Your task to perform on an android device: Add apple airpods pro to the cart on bestbuy.com Image 0: 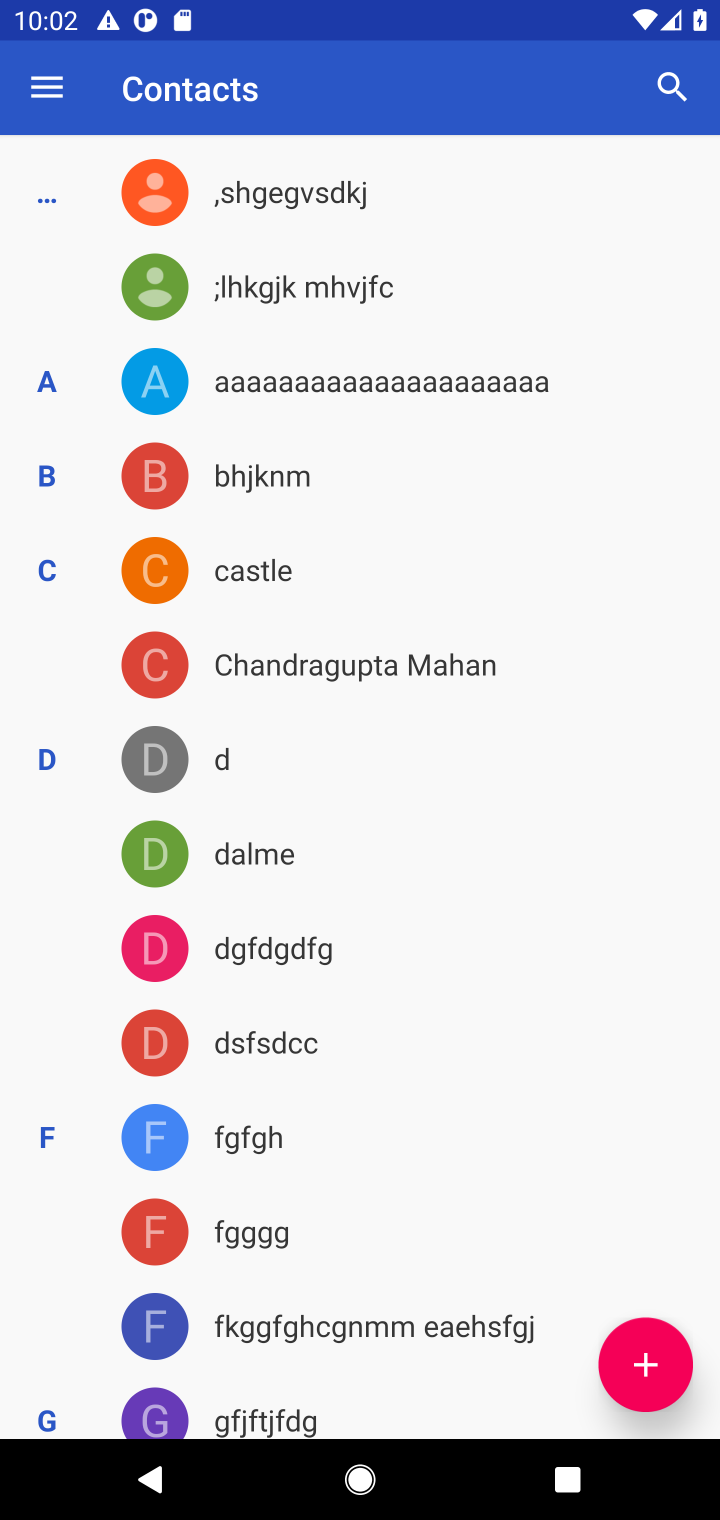
Step 0: press home button
Your task to perform on an android device: Add apple airpods pro to the cart on bestbuy.com Image 1: 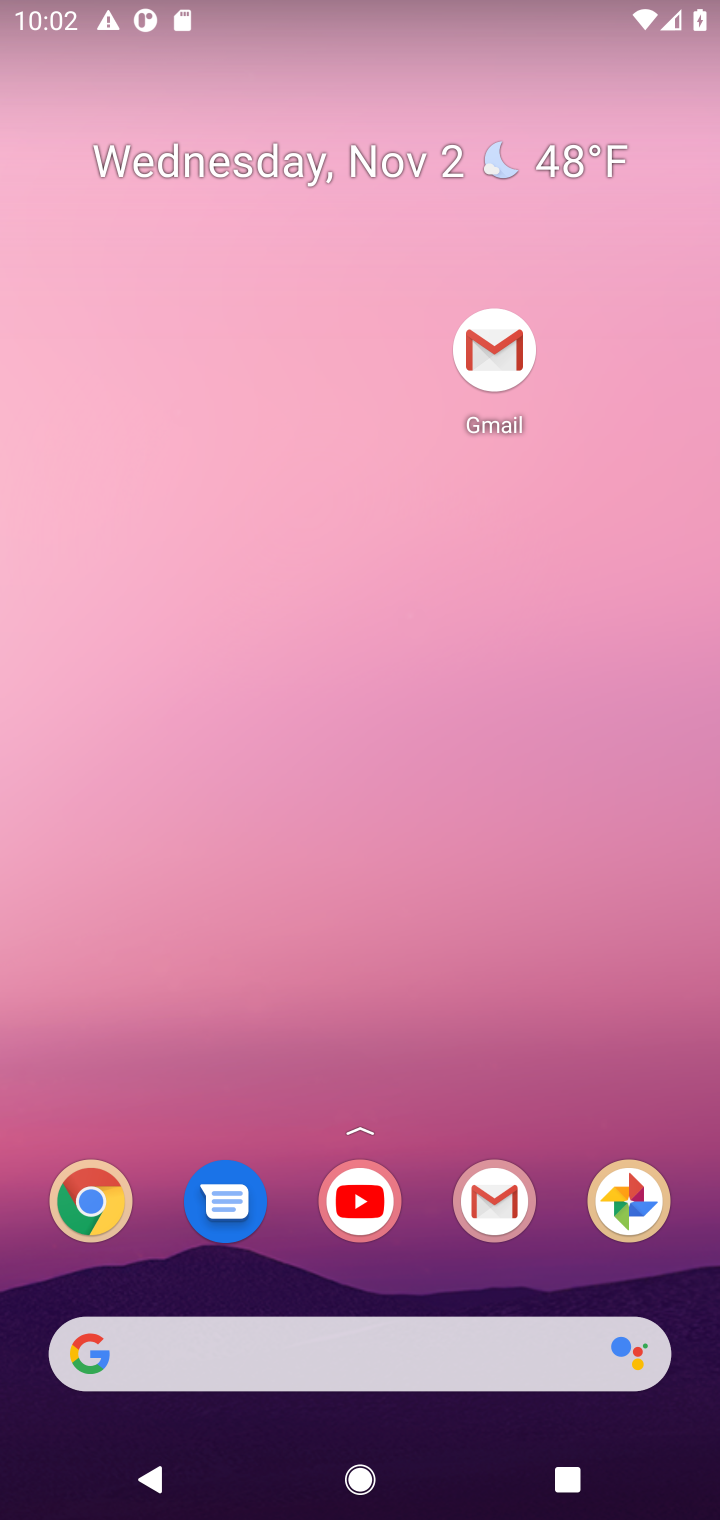
Step 1: drag from (423, 1266) to (341, 51)
Your task to perform on an android device: Add apple airpods pro to the cart on bestbuy.com Image 2: 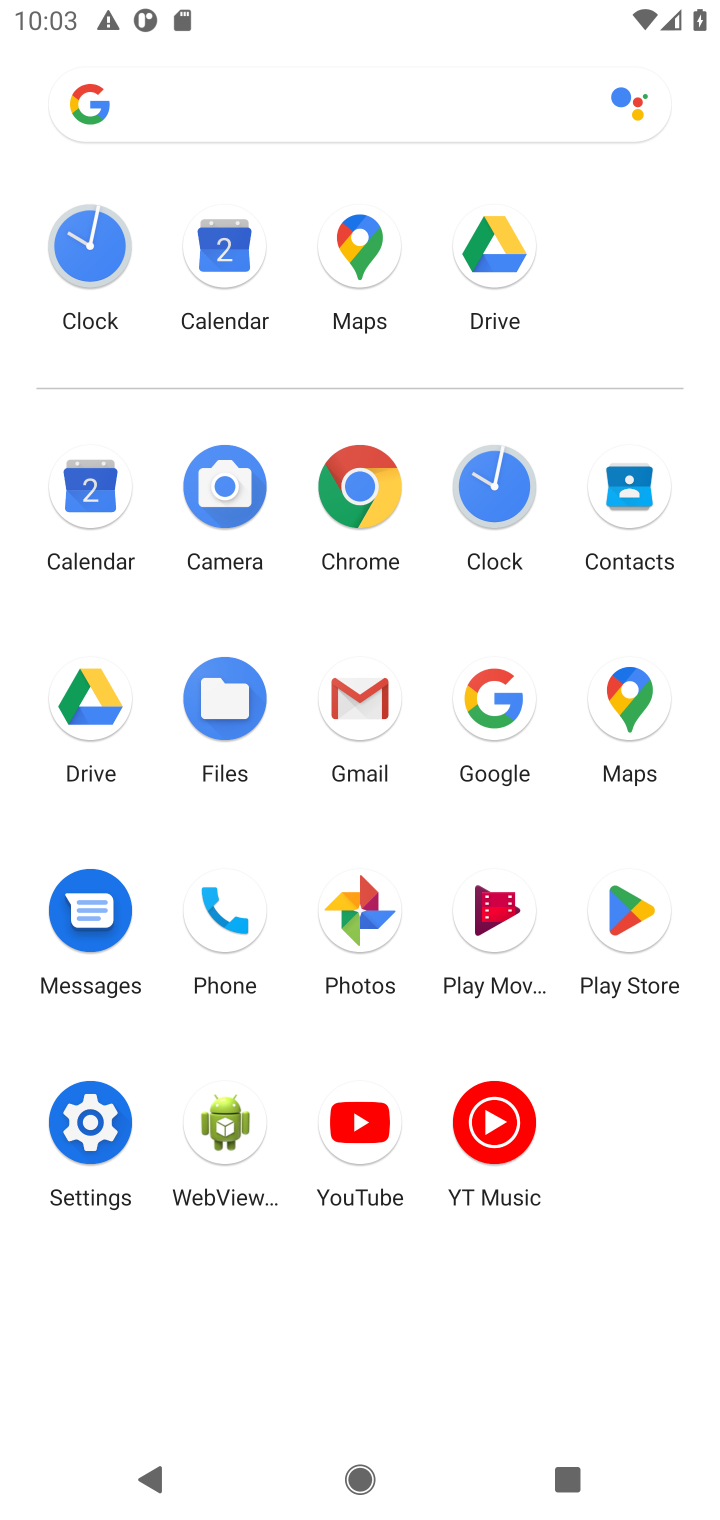
Step 2: click (369, 492)
Your task to perform on an android device: Add apple airpods pro to the cart on bestbuy.com Image 3: 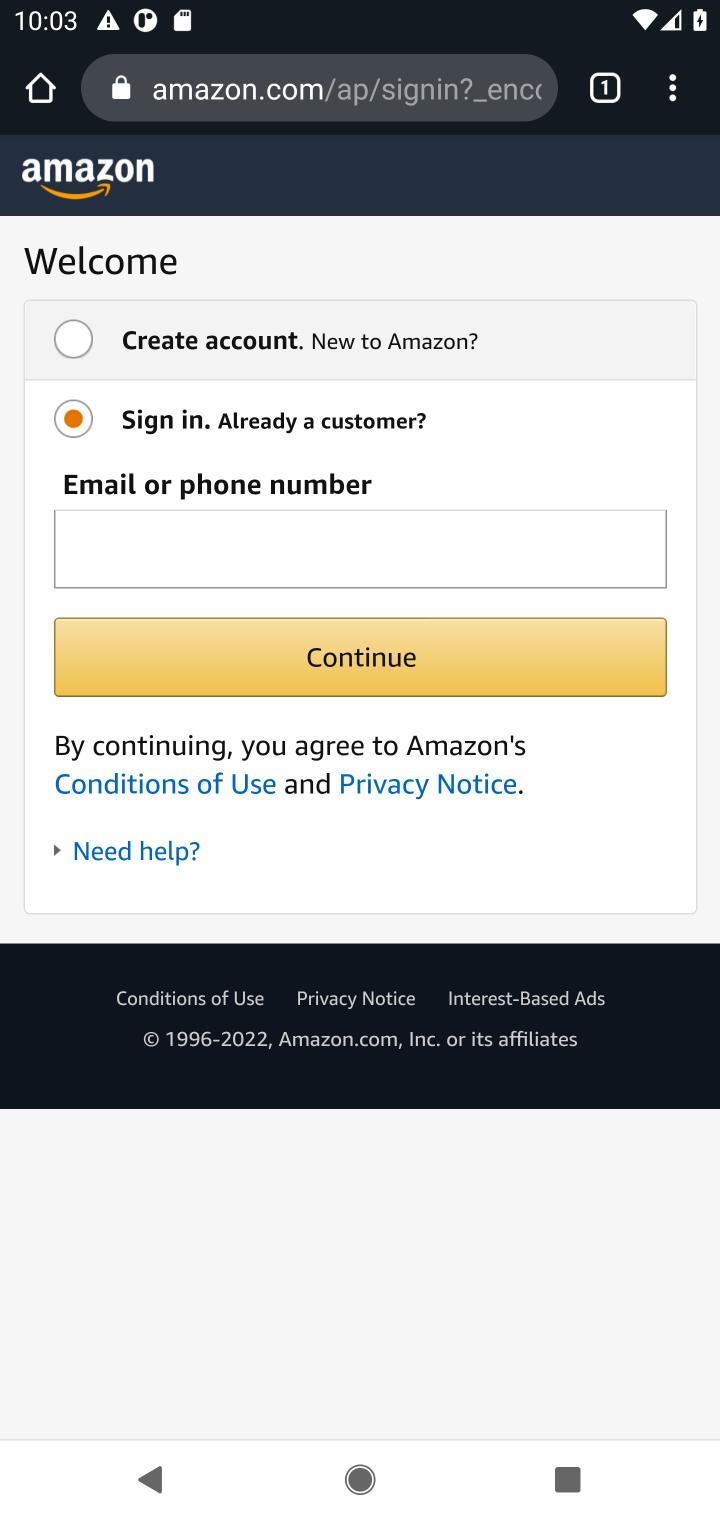
Step 3: click (446, 95)
Your task to perform on an android device: Add apple airpods pro to the cart on bestbuy.com Image 4: 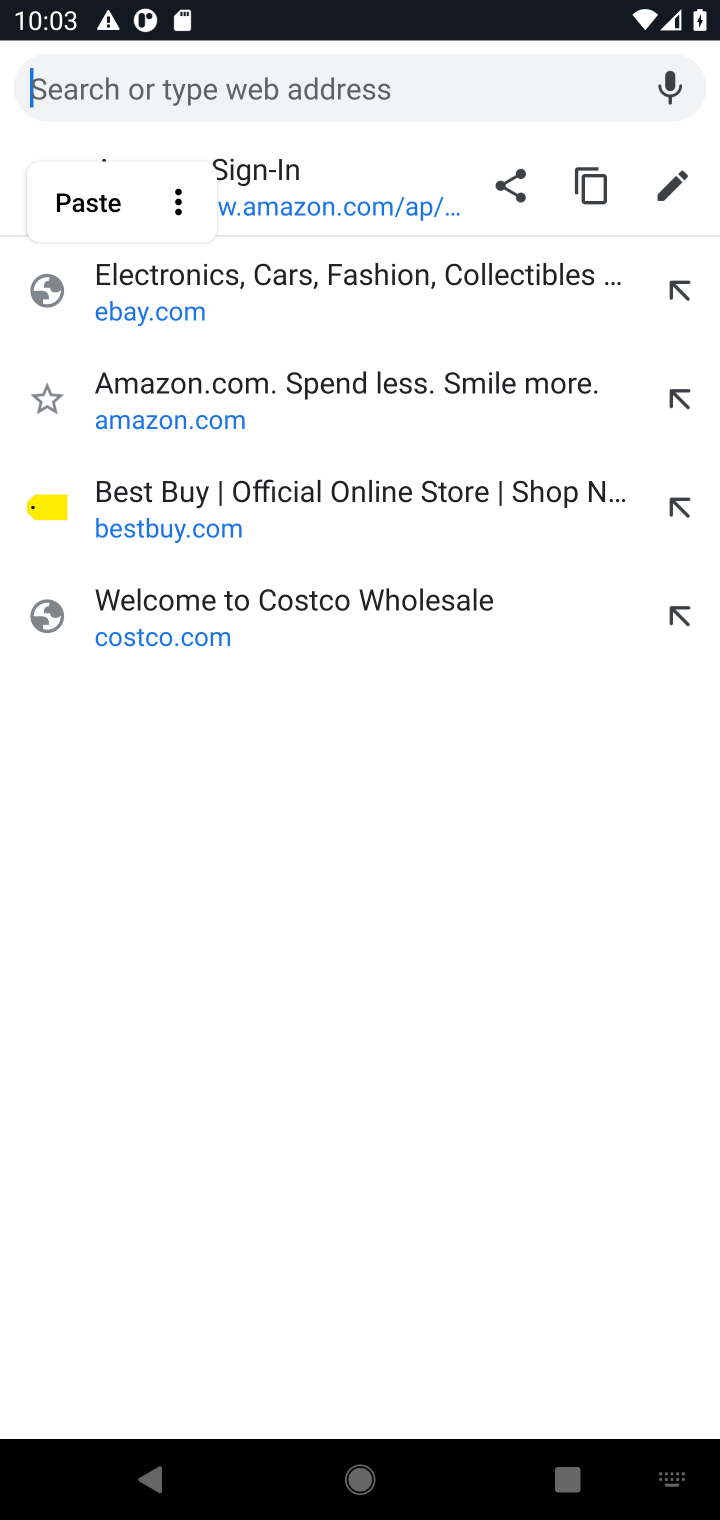
Step 4: type "bestbuy.com"
Your task to perform on an android device: Add apple airpods pro to the cart on bestbuy.com Image 5: 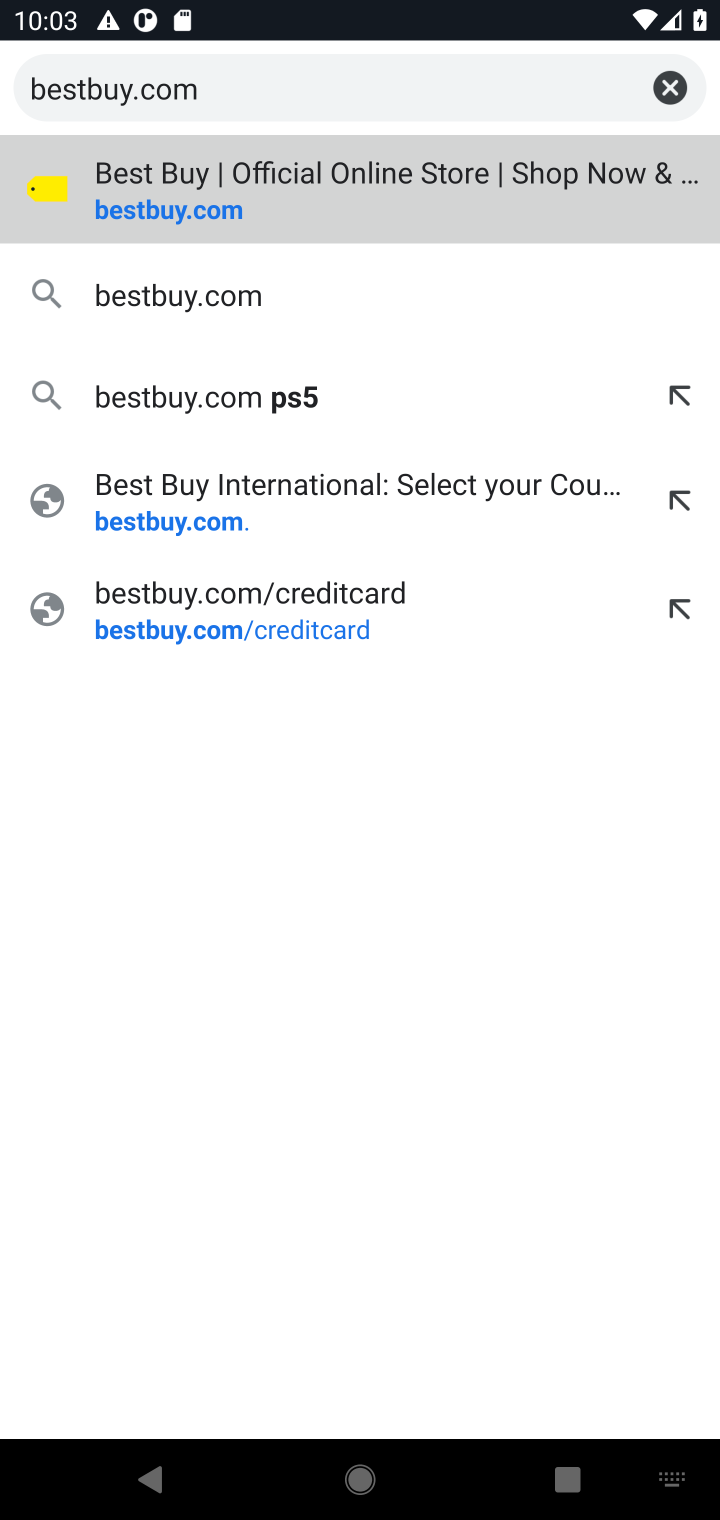
Step 5: press enter
Your task to perform on an android device: Add apple airpods pro to the cart on bestbuy.com Image 6: 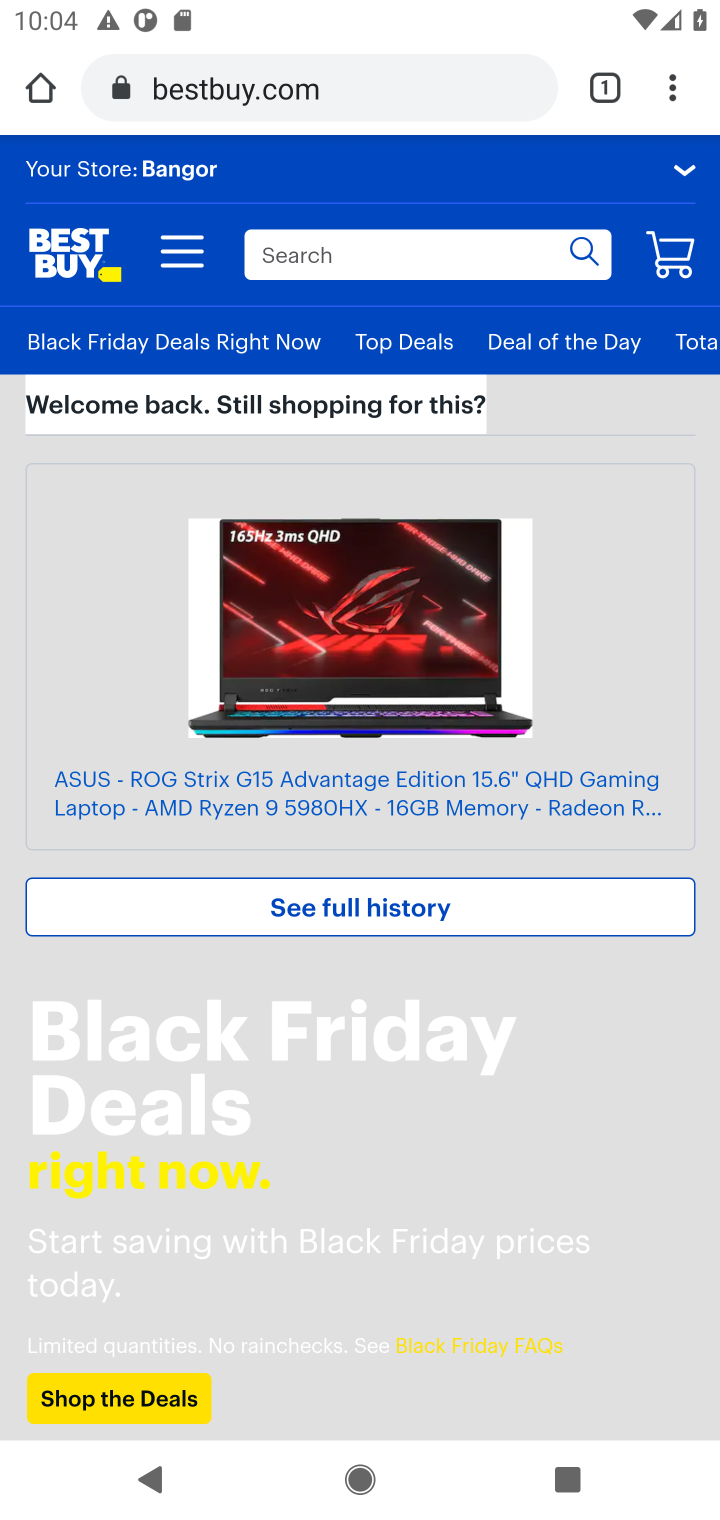
Step 6: click (436, 269)
Your task to perform on an android device: Add apple airpods pro to the cart on bestbuy.com Image 7: 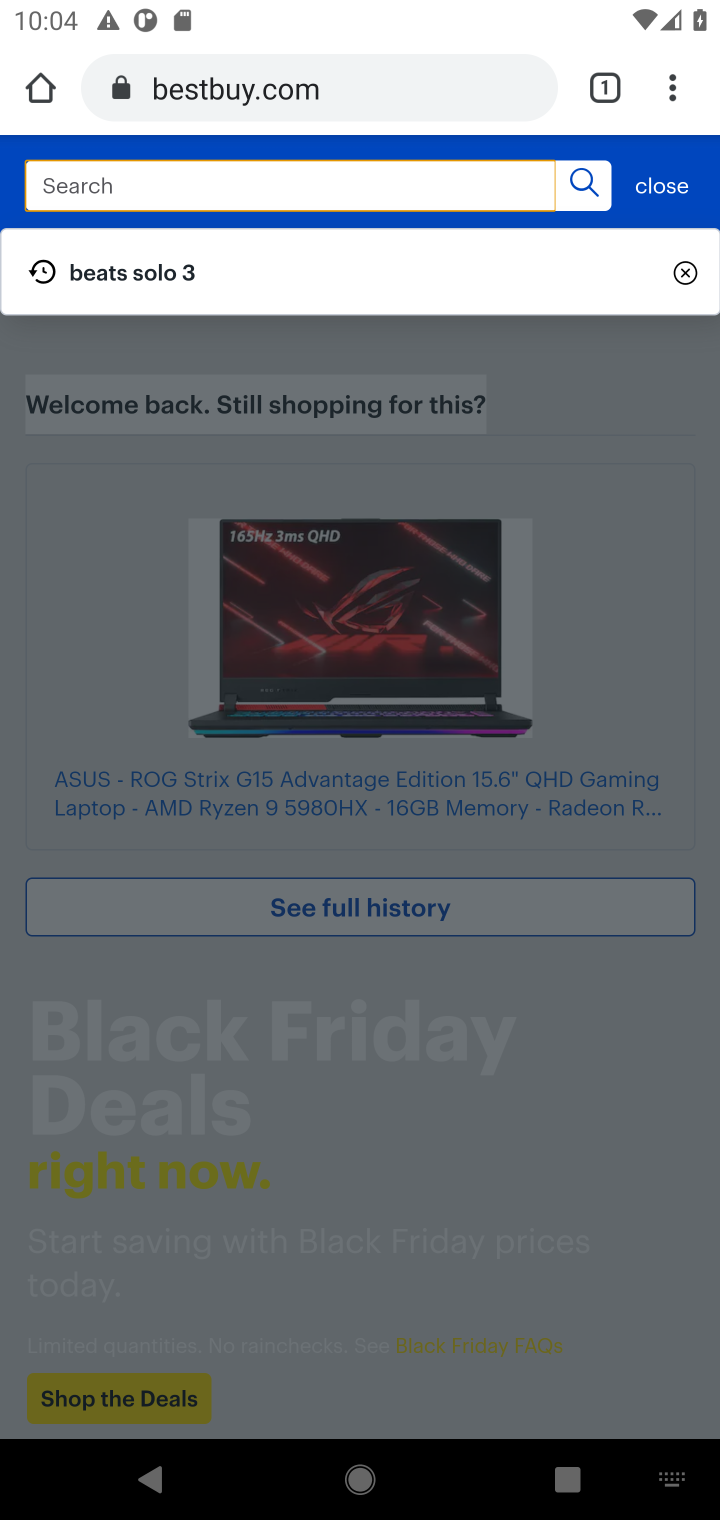
Step 7: type "apple airpods"
Your task to perform on an android device: Add apple airpods pro to the cart on bestbuy.com Image 8: 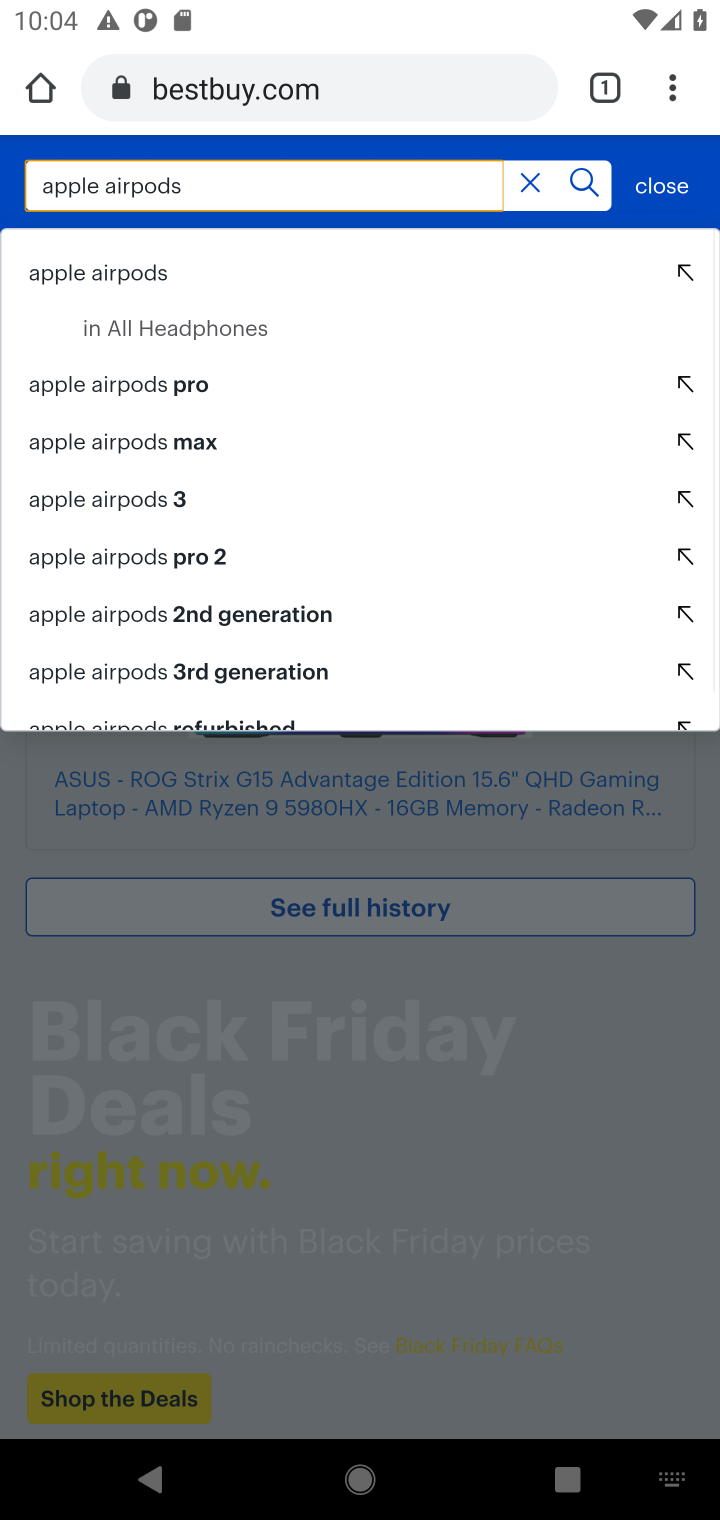
Step 8: press enter
Your task to perform on an android device: Add apple airpods pro to the cart on bestbuy.com Image 9: 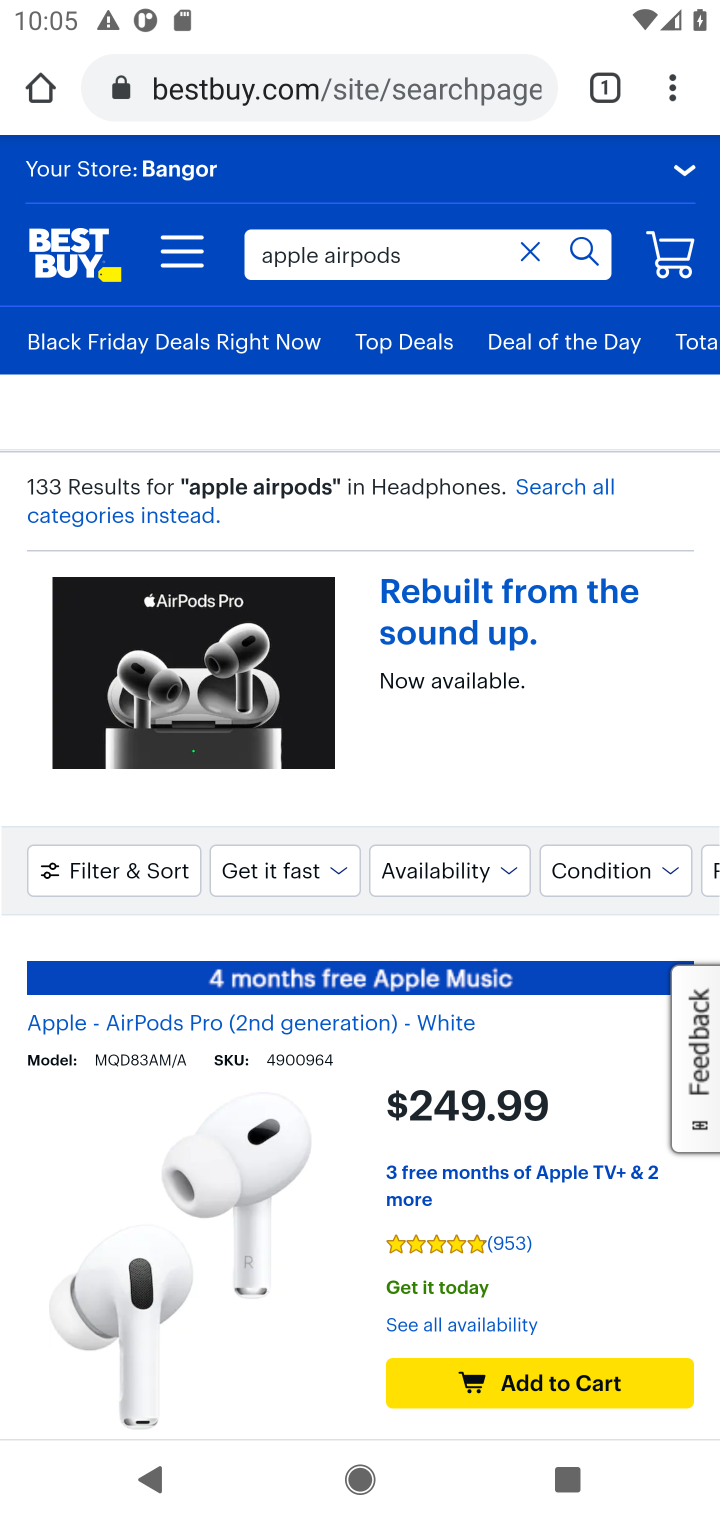
Step 9: click (464, 249)
Your task to perform on an android device: Add apple airpods pro to the cart on bestbuy.com Image 10: 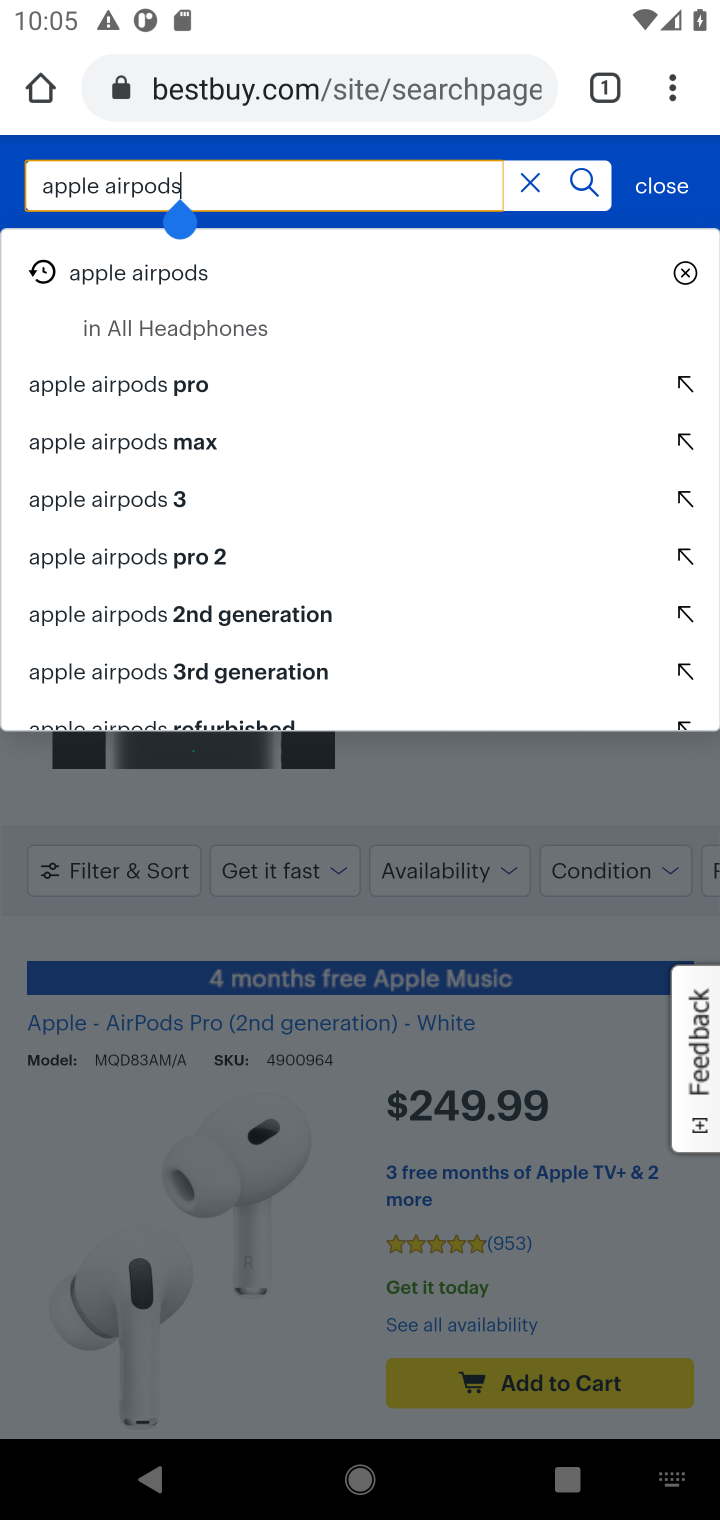
Step 10: click (210, 383)
Your task to perform on an android device: Add apple airpods pro to the cart on bestbuy.com Image 11: 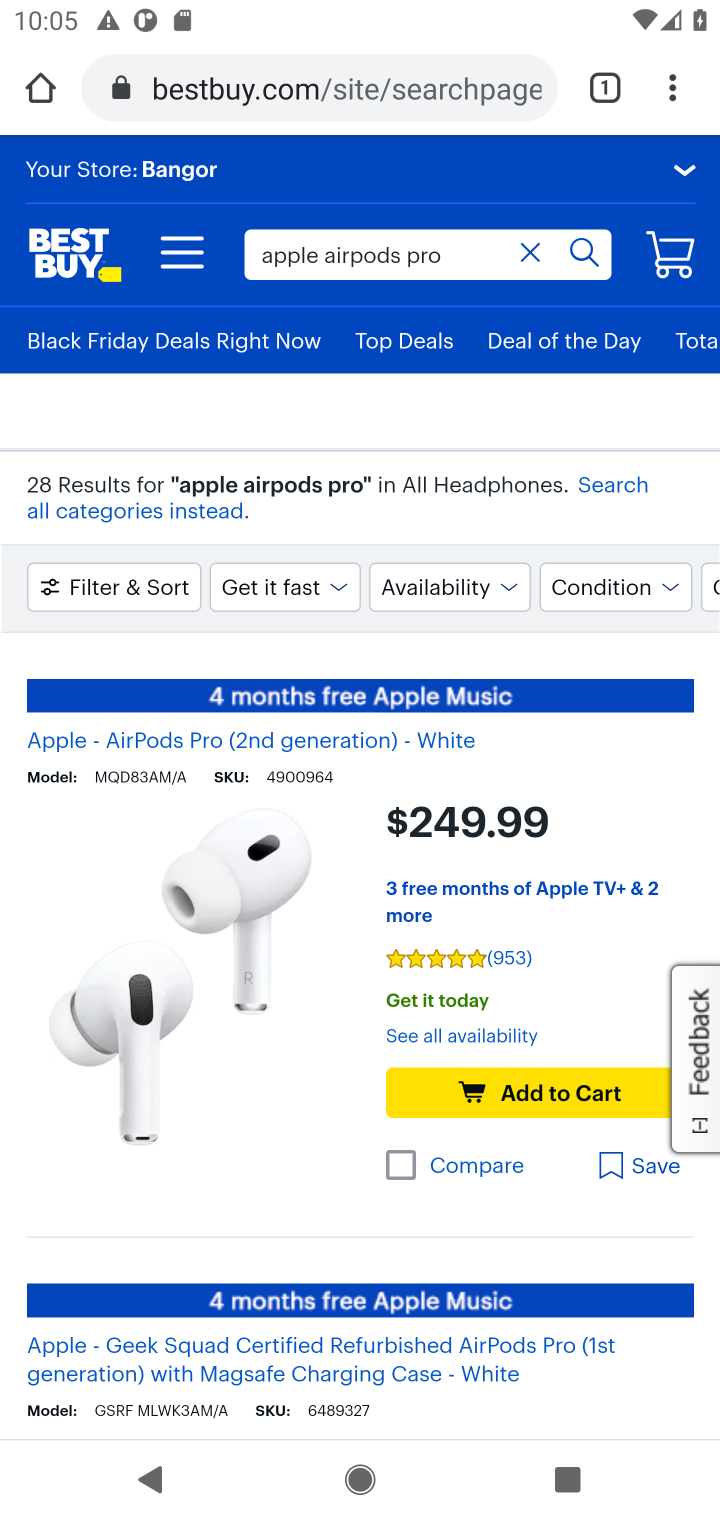
Step 11: click (198, 731)
Your task to perform on an android device: Add apple airpods pro to the cart on bestbuy.com Image 12: 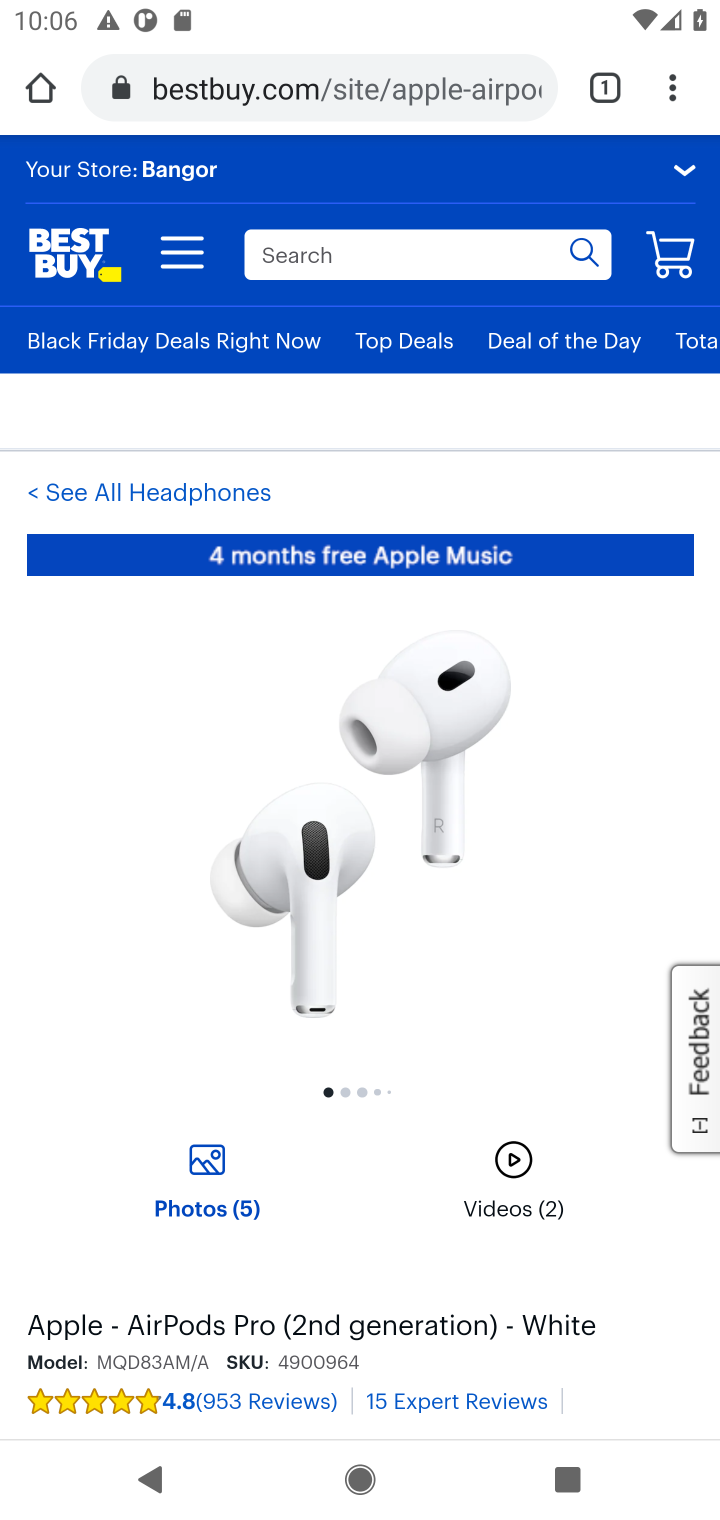
Step 12: drag from (389, 1132) to (353, 452)
Your task to perform on an android device: Add apple airpods pro to the cart on bestbuy.com Image 13: 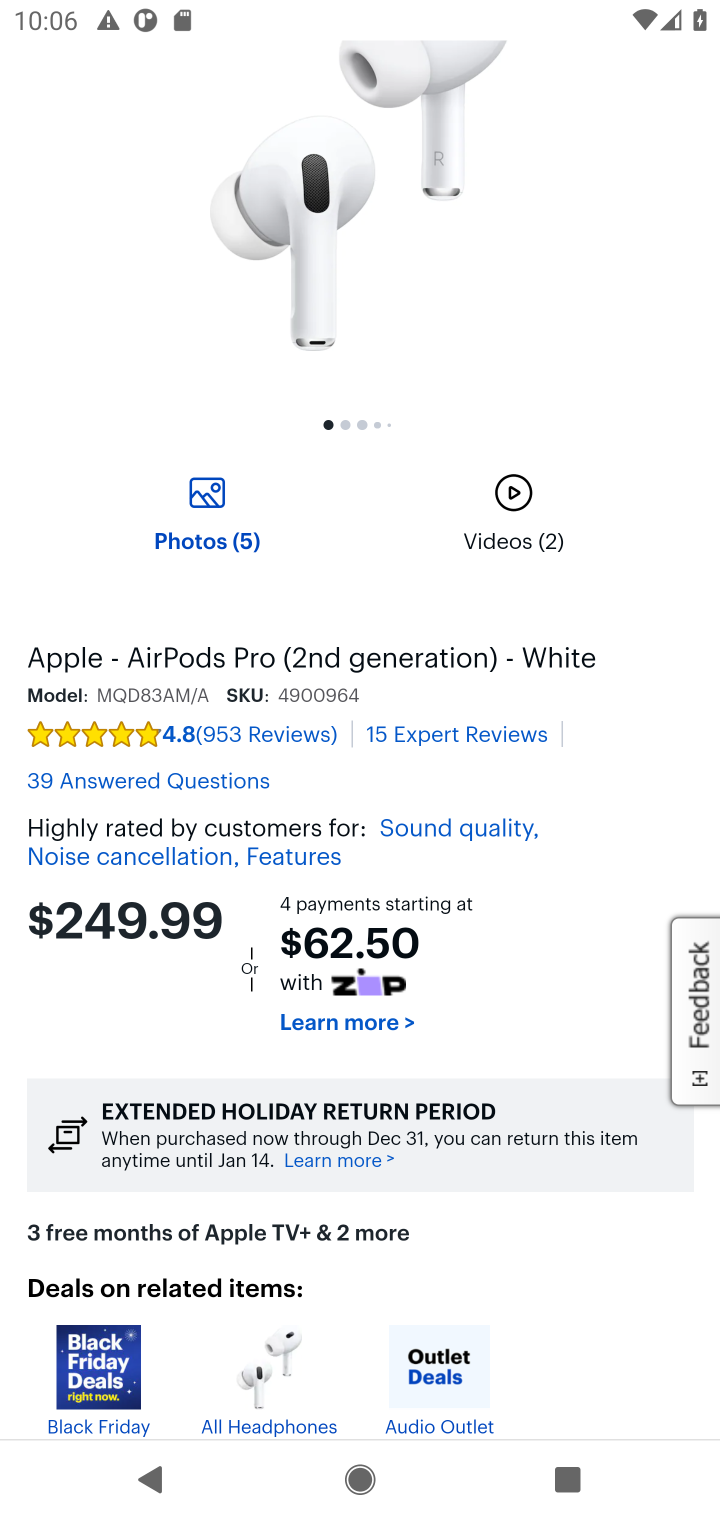
Step 13: drag from (457, 1305) to (394, 512)
Your task to perform on an android device: Add apple airpods pro to the cart on bestbuy.com Image 14: 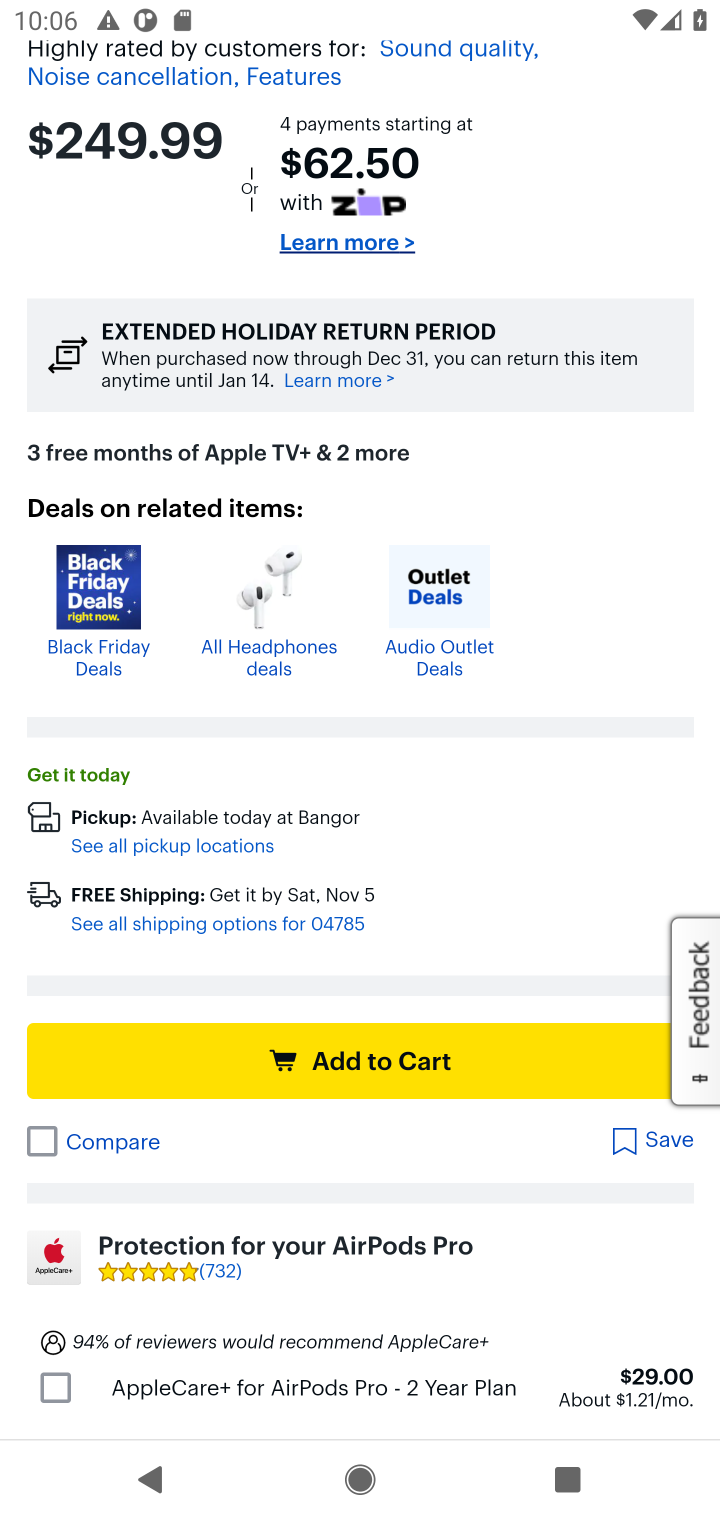
Step 14: click (524, 1075)
Your task to perform on an android device: Add apple airpods pro to the cart on bestbuy.com Image 15: 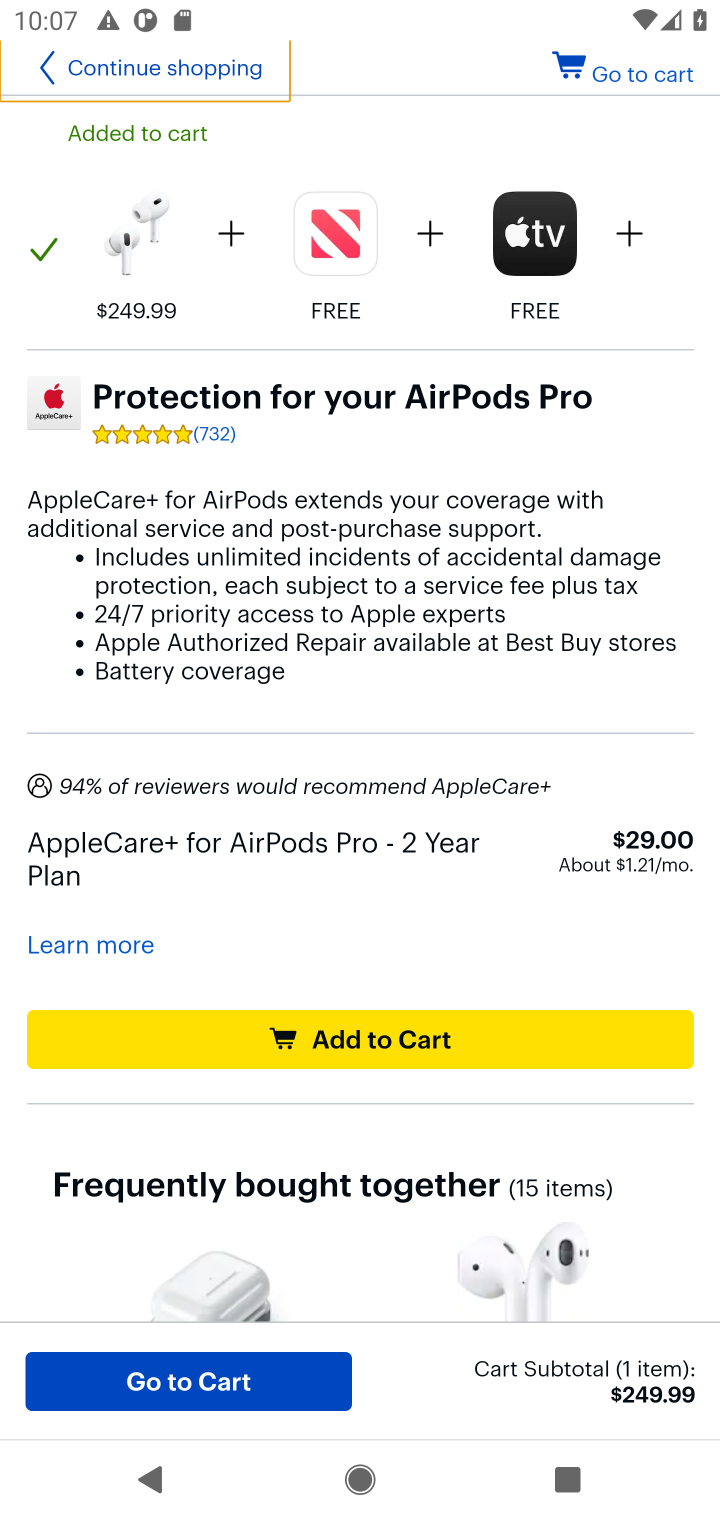
Step 15: task complete